Your task to perform on an android device: Do I have any events tomorrow? Image 0: 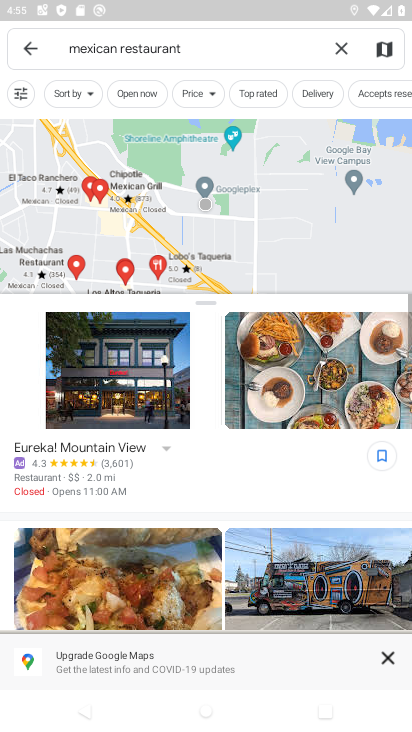
Step 0: drag from (365, 6) to (201, 621)
Your task to perform on an android device: Do I have any events tomorrow? Image 1: 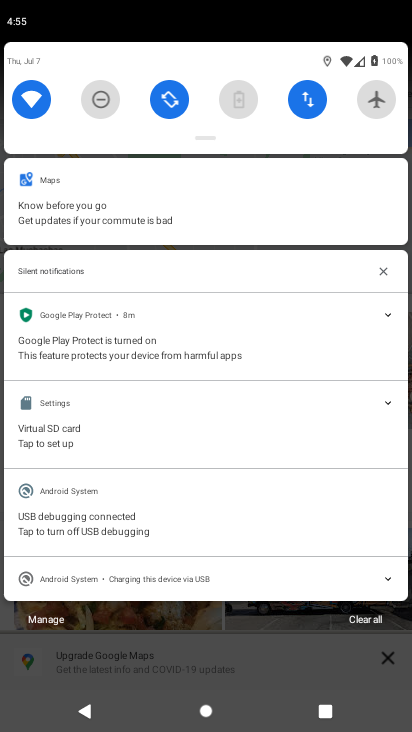
Step 1: press back button
Your task to perform on an android device: Do I have any events tomorrow? Image 2: 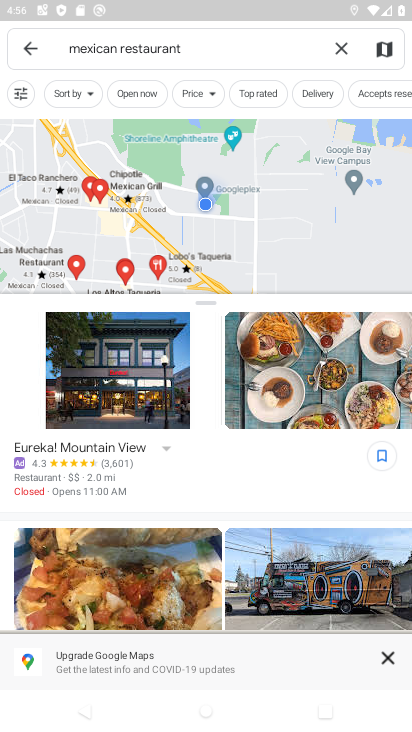
Step 2: press back button
Your task to perform on an android device: Do I have any events tomorrow? Image 3: 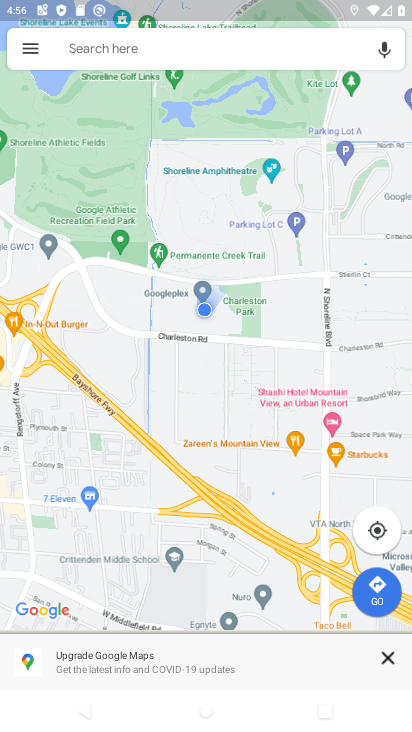
Step 3: press back button
Your task to perform on an android device: Do I have any events tomorrow? Image 4: 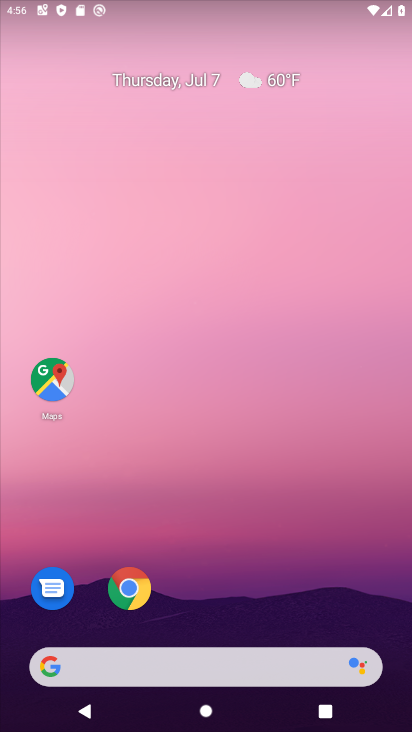
Step 4: drag from (192, 617) to (202, 3)
Your task to perform on an android device: Do I have any events tomorrow? Image 5: 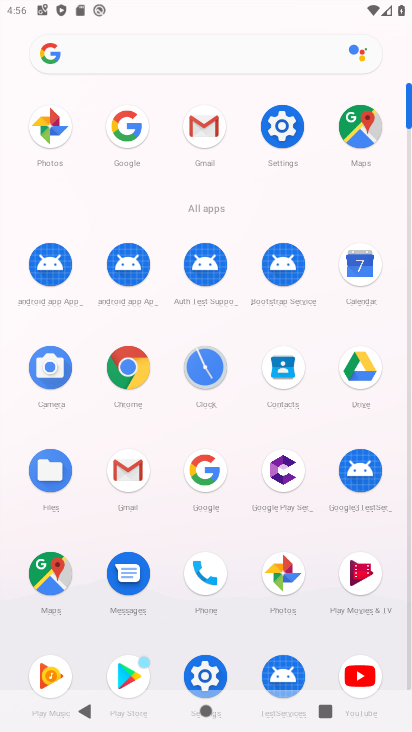
Step 5: click (361, 264)
Your task to perform on an android device: Do I have any events tomorrow? Image 6: 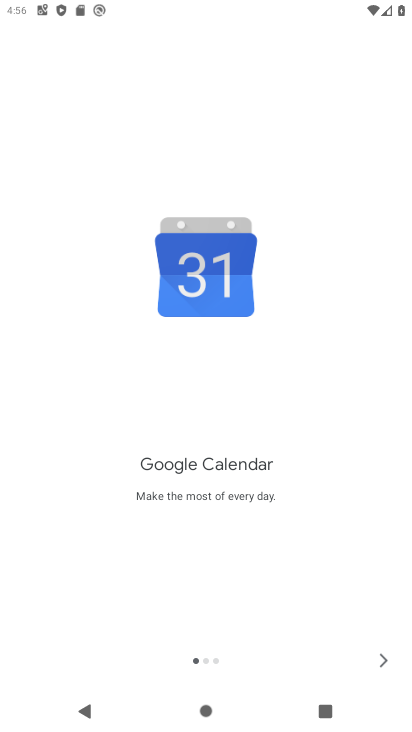
Step 6: click (372, 650)
Your task to perform on an android device: Do I have any events tomorrow? Image 7: 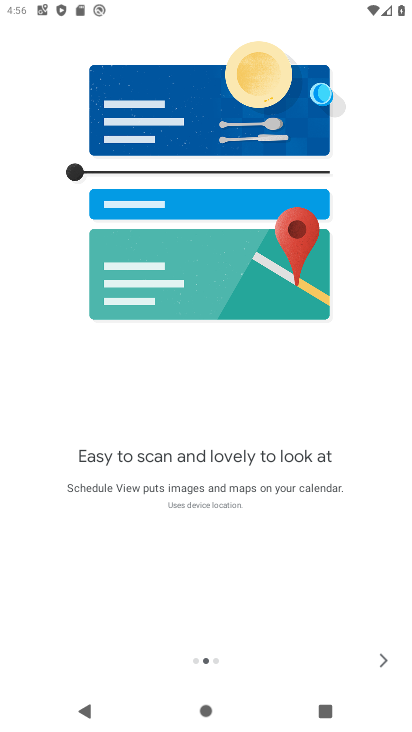
Step 7: click (383, 658)
Your task to perform on an android device: Do I have any events tomorrow? Image 8: 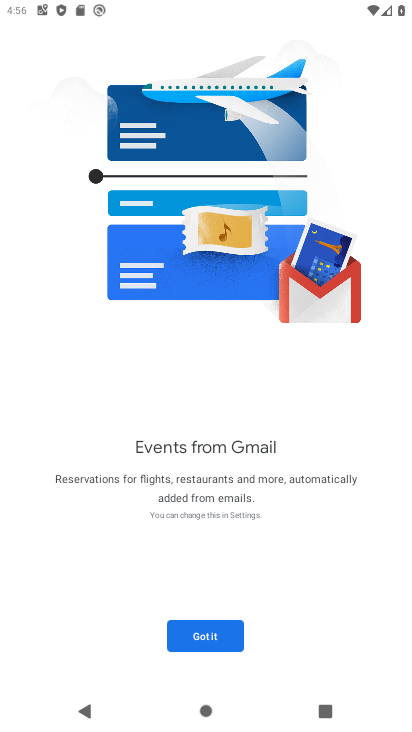
Step 8: click (379, 659)
Your task to perform on an android device: Do I have any events tomorrow? Image 9: 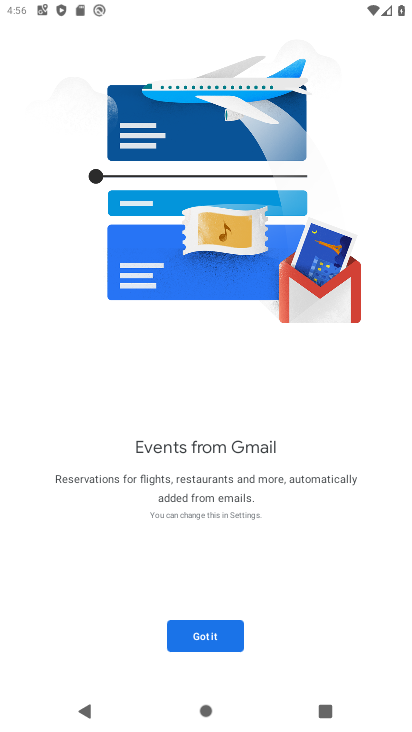
Step 9: click (227, 643)
Your task to perform on an android device: Do I have any events tomorrow? Image 10: 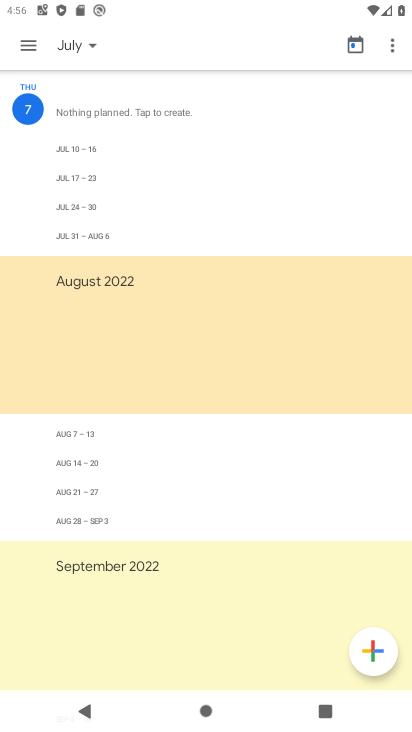
Step 10: task complete